Your task to perform on an android device: Open calendar and show me the second week of next month Image 0: 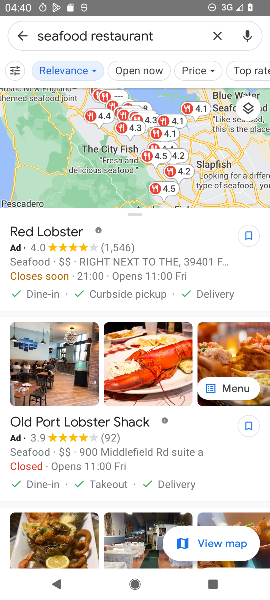
Step 0: press home button
Your task to perform on an android device: Open calendar and show me the second week of next month Image 1: 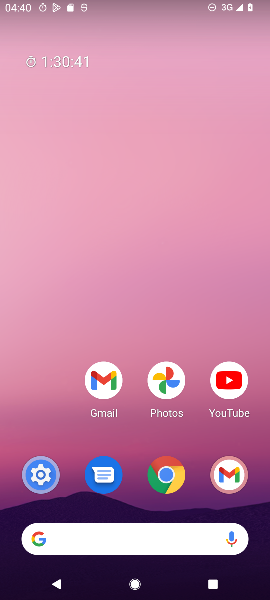
Step 1: drag from (58, 424) to (59, 187)
Your task to perform on an android device: Open calendar and show me the second week of next month Image 2: 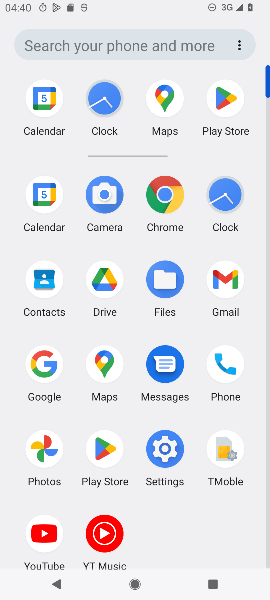
Step 2: click (40, 207)
Your task to perform on an android device: Open calendar and show me the second week of next month Image 3: 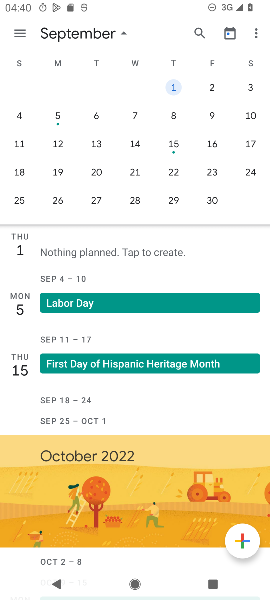
Step 3: click (55, 118)
Your task to perform on an android device: Open calendar and show me the second week of next month Image 4: 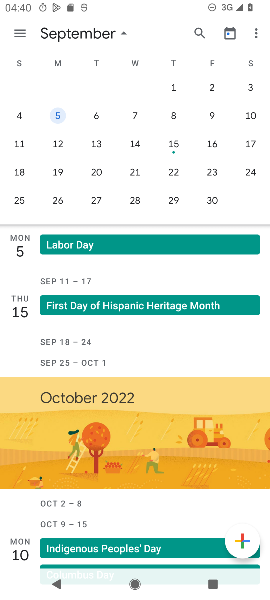
Step 4: task complete